Your task to perform on an android device: Look up the best rated coffee maker on Lowe's. Image 0: 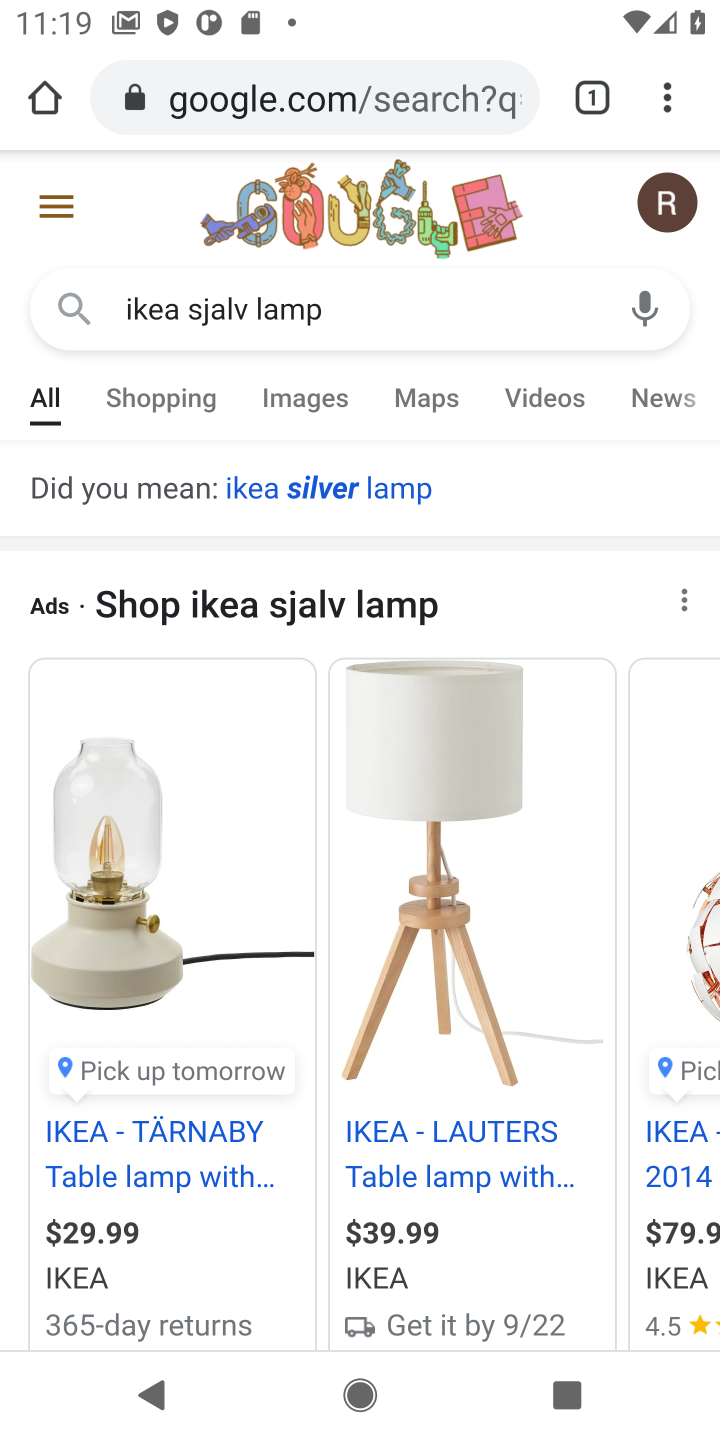
Step 0: click (494, 102)
Your task to perform on an android device: Look up the best rated coffee maker on Lowe's. Image 1: 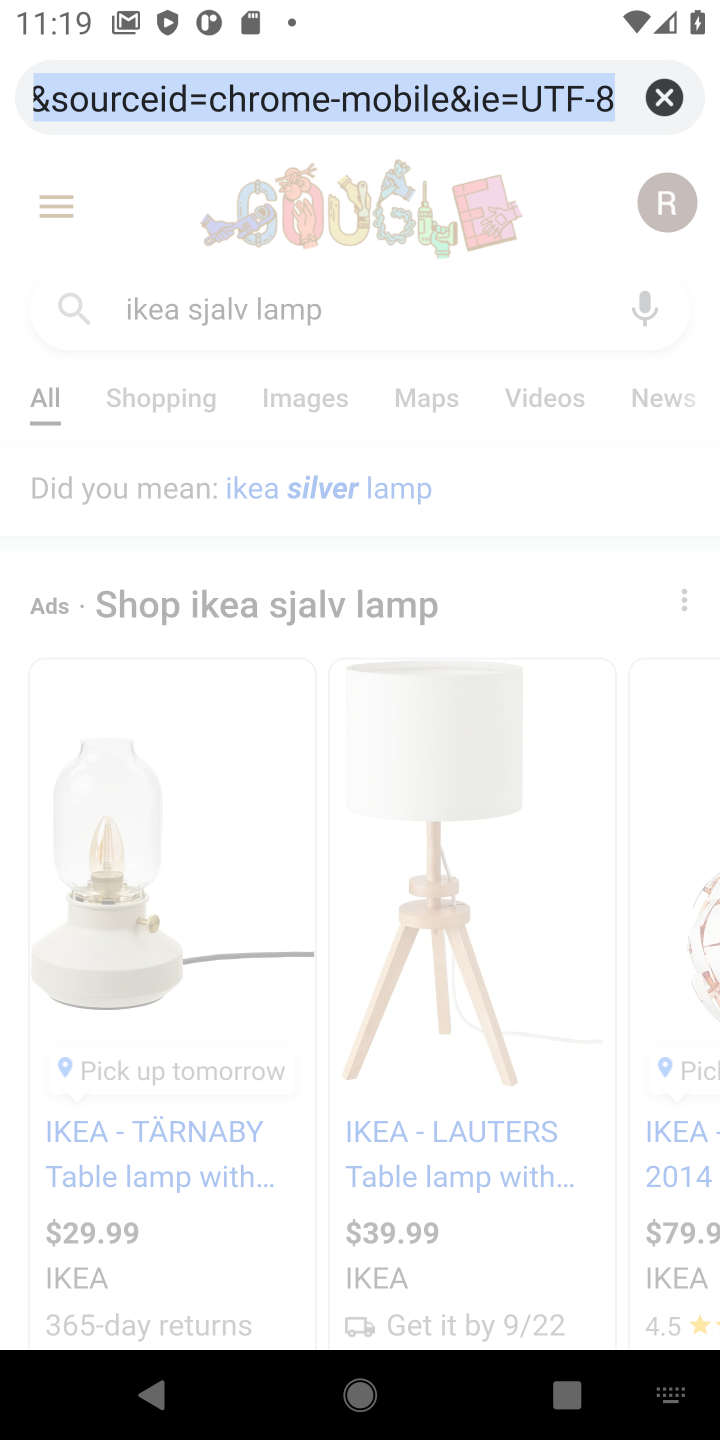
Step 1: type "lowes"
Your task to perform on an android device: Look up the best rated coffee maker on Lowe's. Image 2: 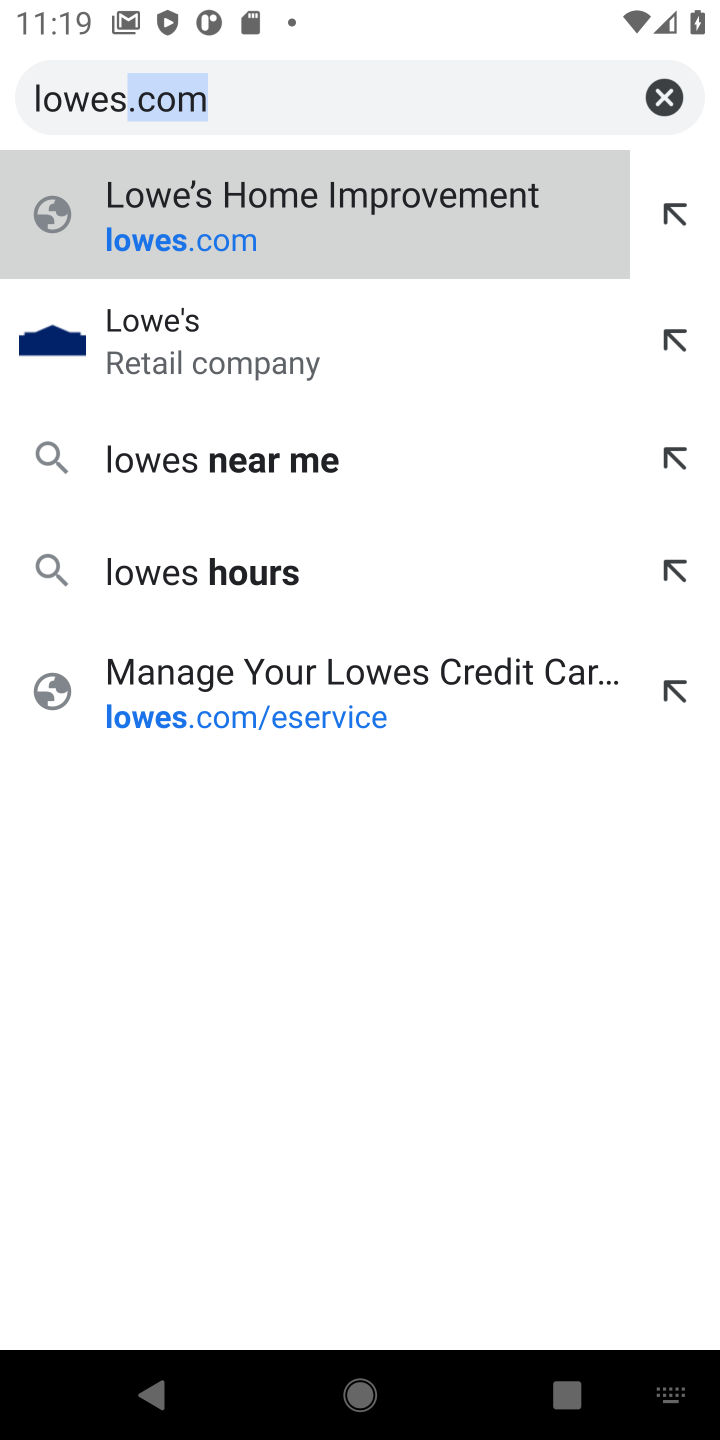
Step 2: click (471, 245)
Your task to perform on an android device: Look up the best rated coffee maker on Lowe's. Image 3: 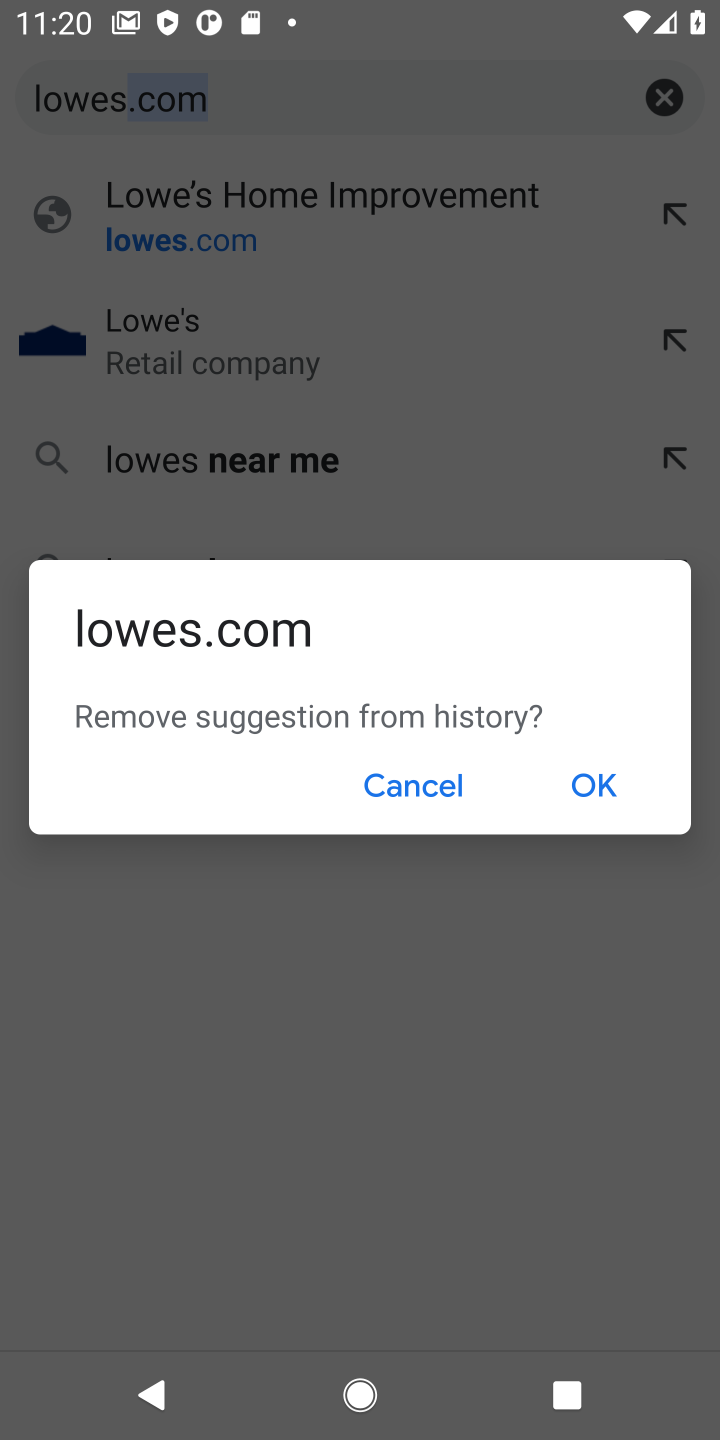
Step 3: click (426, 782)
Your task to perform on an android device: Look up the best rated coffee maker on Lowe's. Image 4: 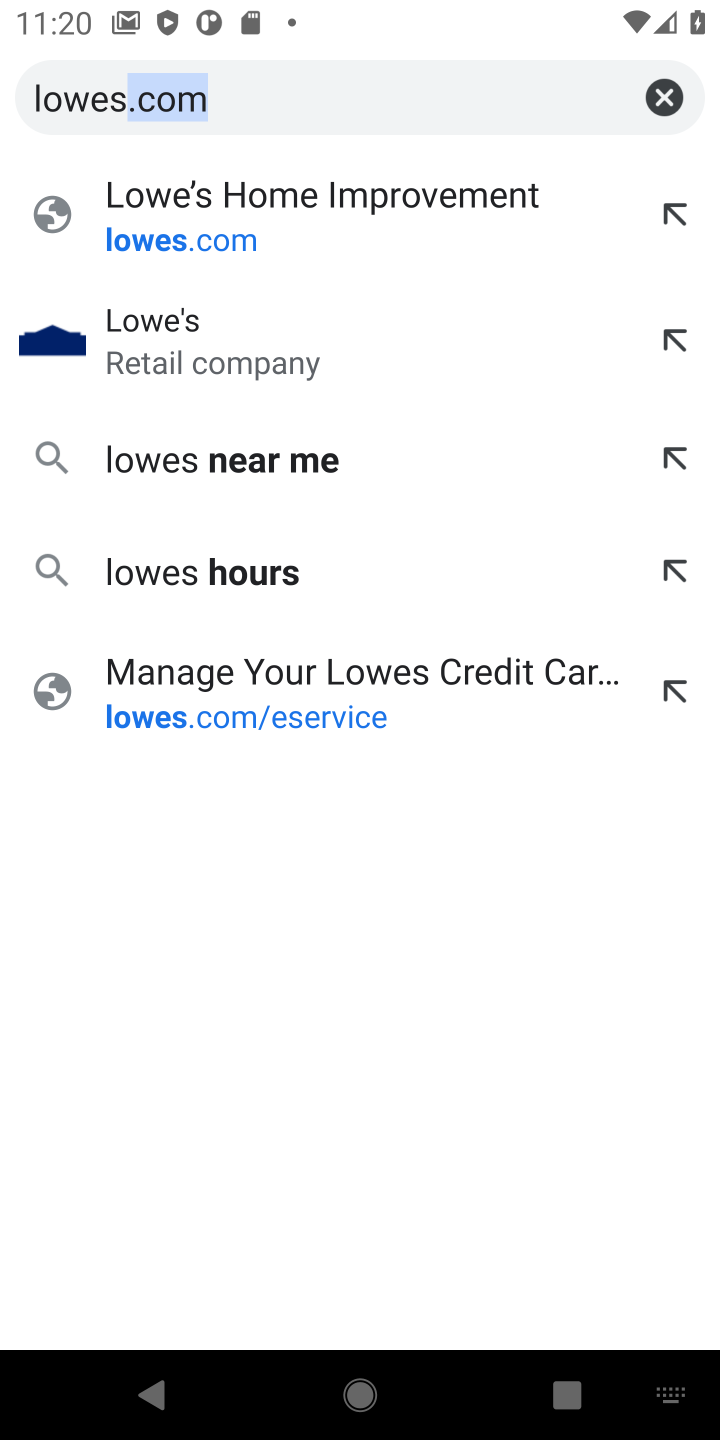
Step 4: click (235, 240)
Your task to perform on an android device: Look up the best rated coffee maker on Lowe's. Image 5: 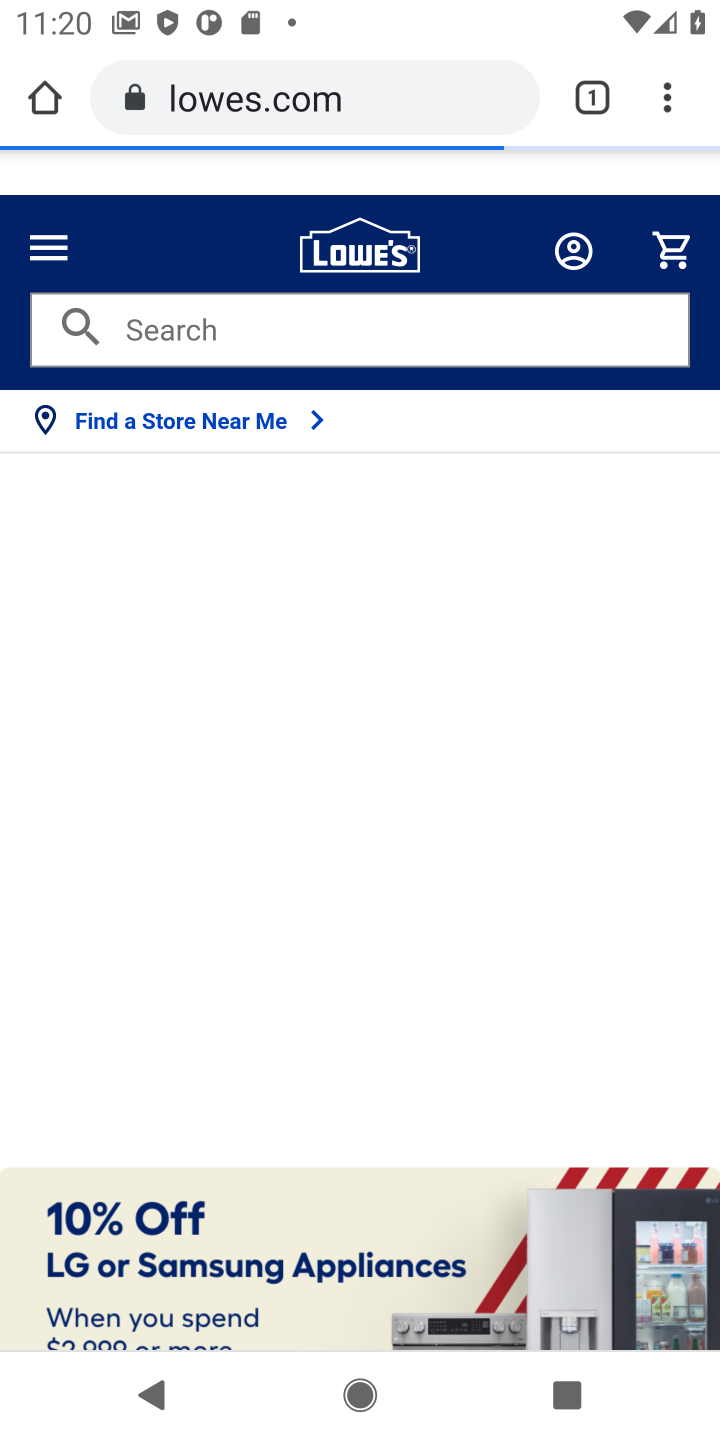
Step 5: click (272, 312)
Your task to perform on an android device: Look up the best rated coffee maker on Lowe's. Image 6: 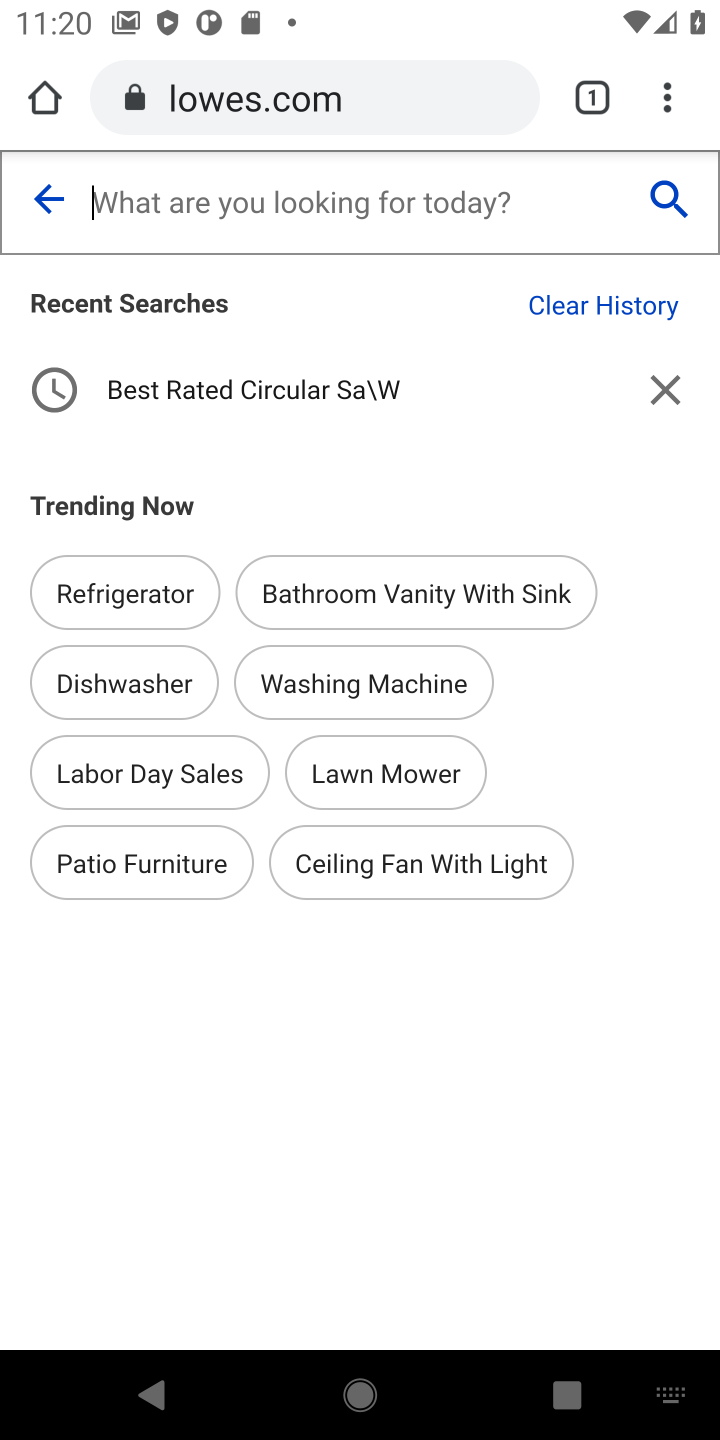
Step 6: type "best rated coffee maker"
Your task to perform on an android device: Look up the best rated coffee maker on Lowe's. Image 7: 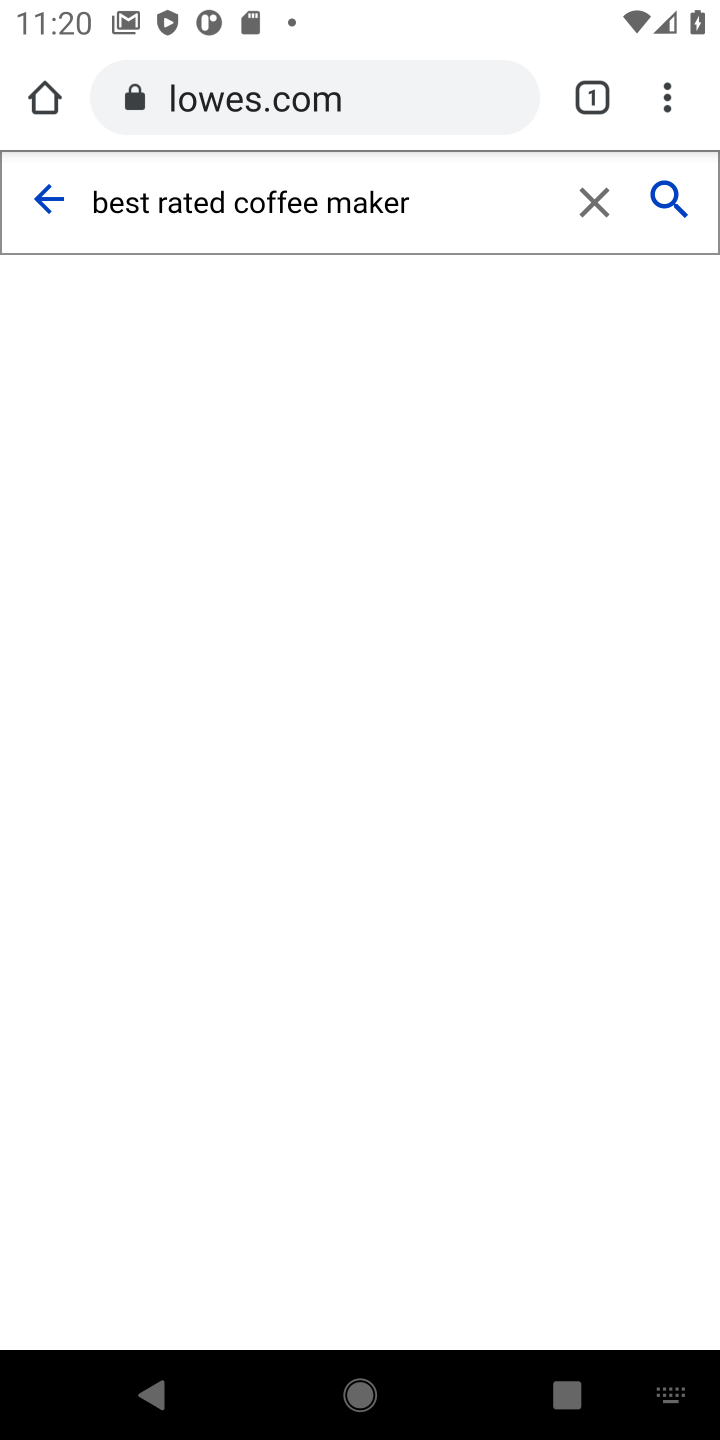
Step 7: press enter
Your task to perform on an android device: Look up the best rated coffee maker on Lowe's. Image 8: 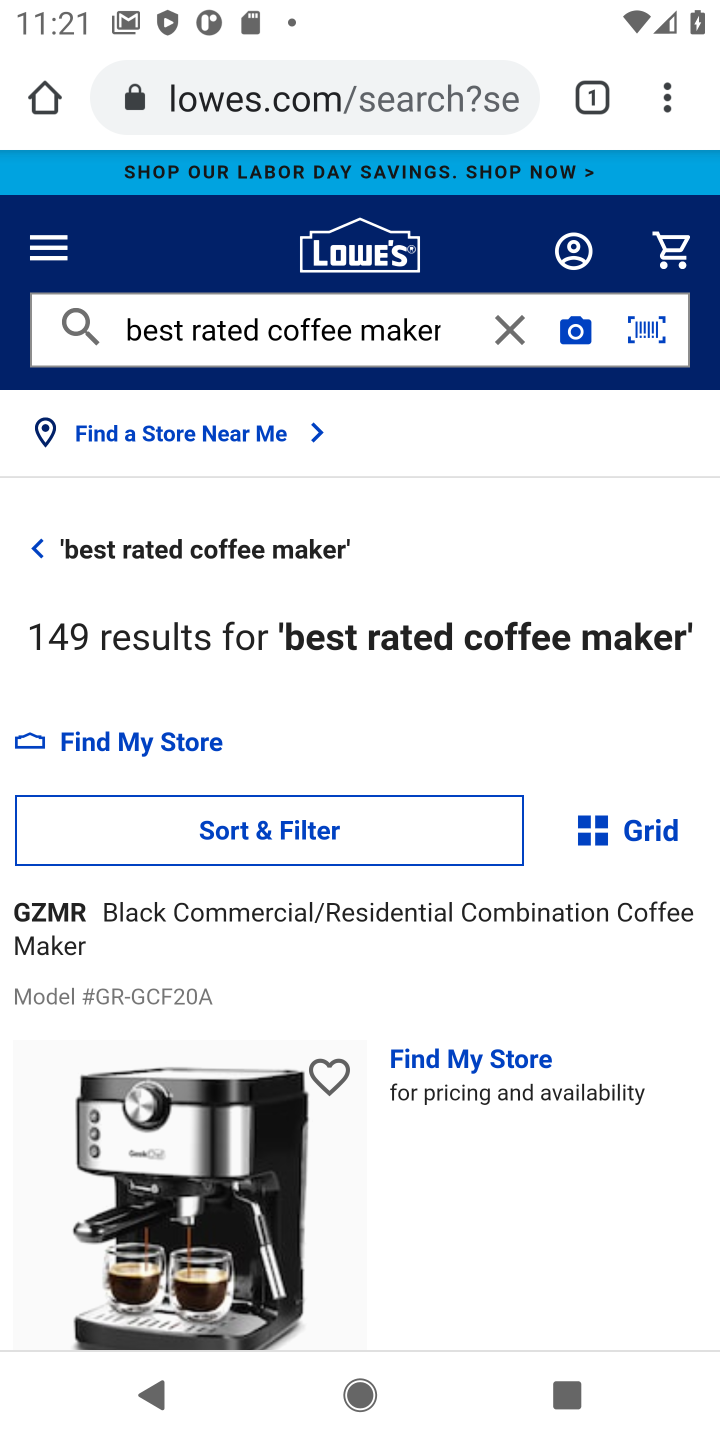
Step 8: task complete